Your task to perform on an android device: open app "ColorNote Notepad Notes" (install if not already installed) Image 0: 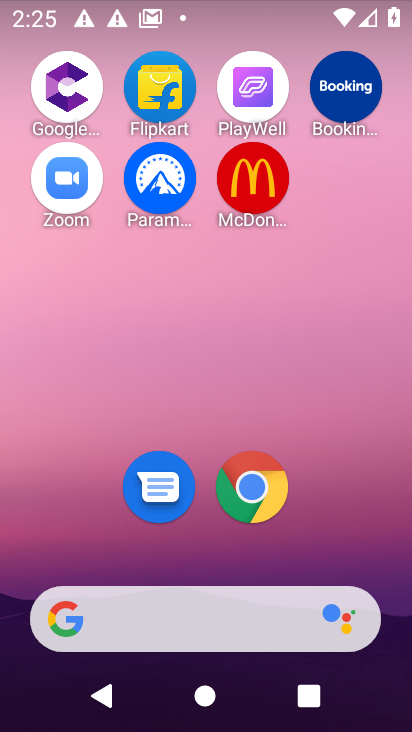
Step 0: drag from (172, 617) to (276, 60)
Your task to perform on an android device: open app "ColorNote Notepad Notes" (install if not already installed) Image 1: 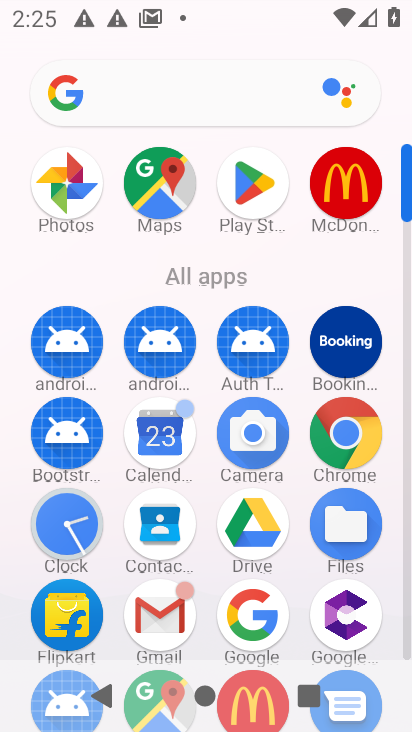
Step 1: click (264, 186)
Your task to perform on an android device: open app "ColorNote Notepad Notes" (install if not already installed) Image 2: 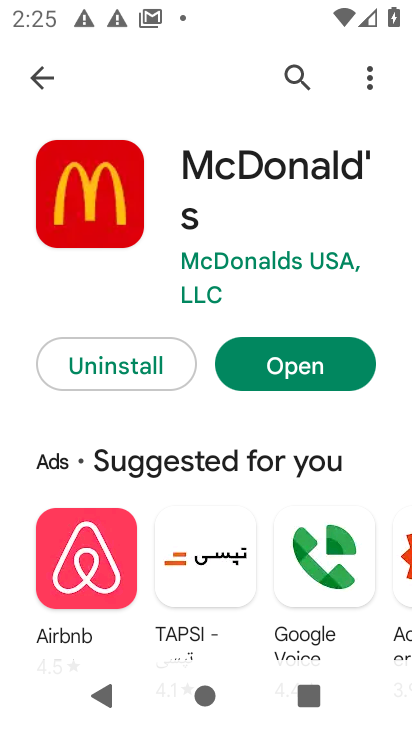
Step 2: press back button
Your task to perform on an android device: open app "ColorNote Notepad Notes" (install if not already installed) Image 3: 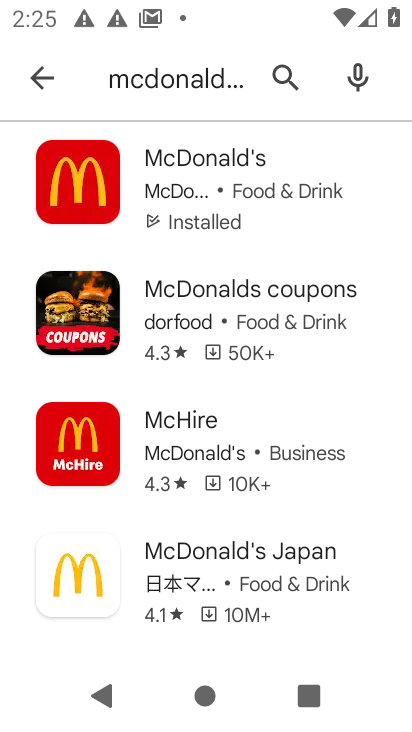
Step 3: press back button
Your task to perform on an android device: open app "ColorNote Notepad Notes" (install if not already installed) Image 4: 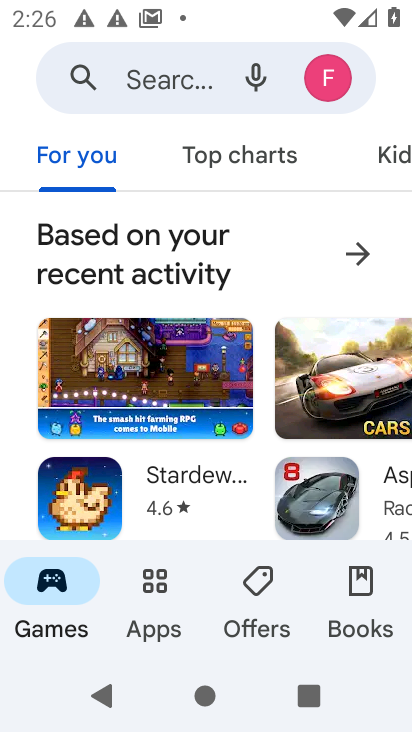
Step 4: click (174, 84)
Your task to perform on an android device: open app "ColorNote Notepad Notes" (install if not already installed) Image 5: 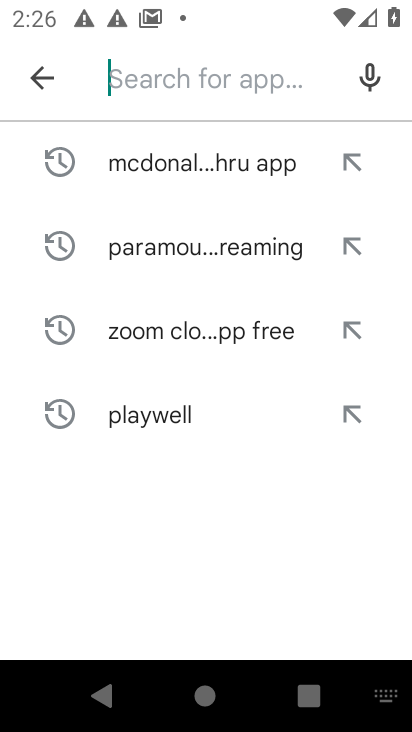
Step 5: click (182, 96)
Your task to perform on an android device: open app "ColorNote Notepad Notes" (install if not already installed) Image 6: 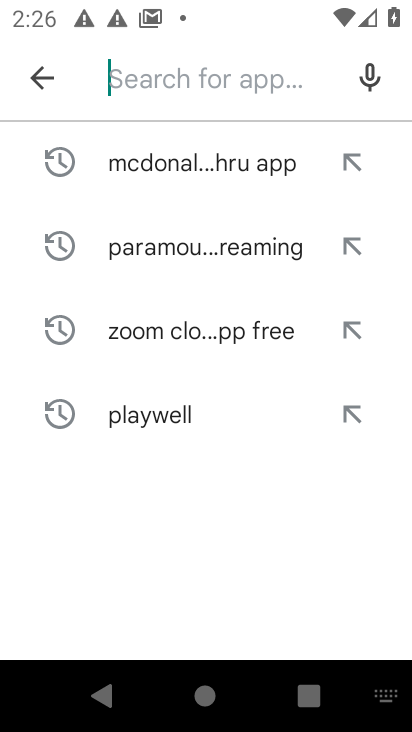
Step 6: type "ColorNote Notepad Notes"
Your task to perform on an android device: open app "ColorNote Notepad Notes" (install if not already installed) Image 7: 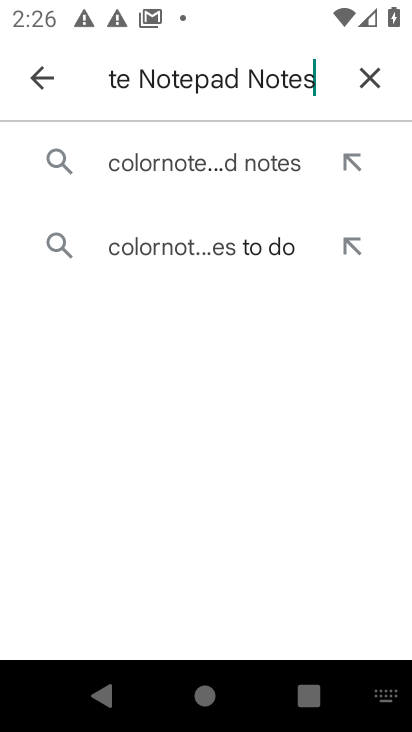
Step 7: click (136, 163)
Your task to perform on an android device: open app "ColorNote Notepad Notes" (install if not already installed) Image 8: 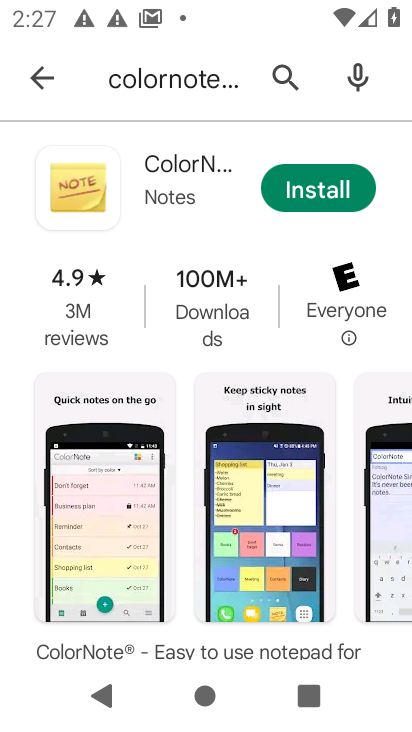
Step 8: click (327, 191)
Your task to perform on an android device: open app "ColorNote Notepad Notes" (install if not already installed) Image 9: 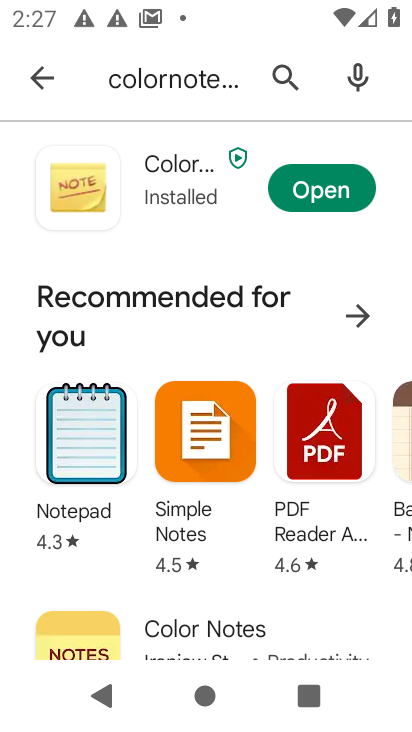
Step 9: click (317, 194)
Your task to perform on an android device: open app "ColorNote Notepad Notes" (install if not already installed) Image 10: 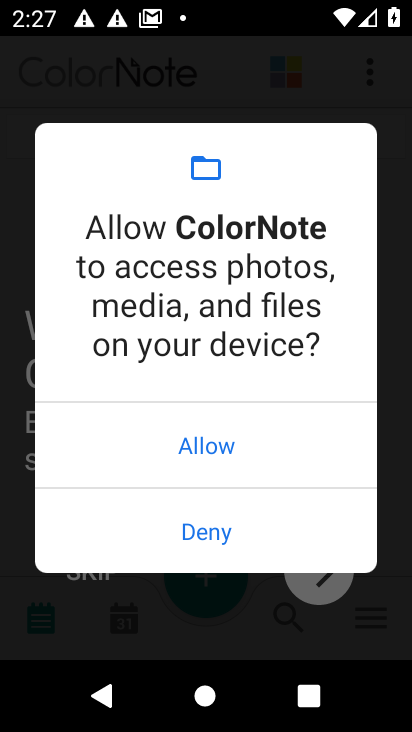
Step 10: click (199, 448)
Your task to perform on an android device: open app "ColorNote Notepad Notes" (install if not already installed) Image 11: 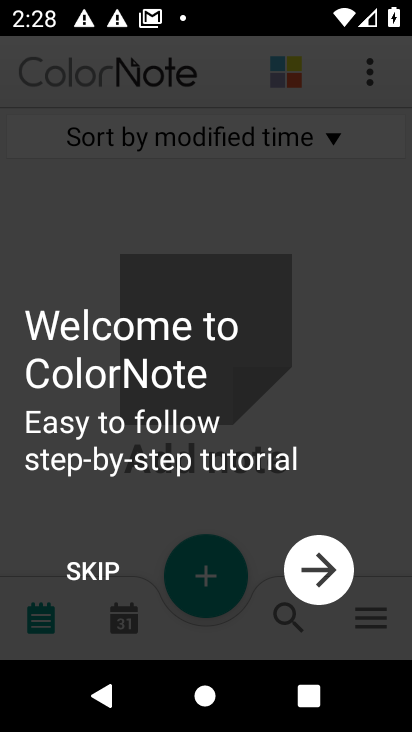
Step 11: click (97, 577)
Your task to perform on an android device: open app "ColorNote Notepad Notes" (install if not already installed) Image 12: 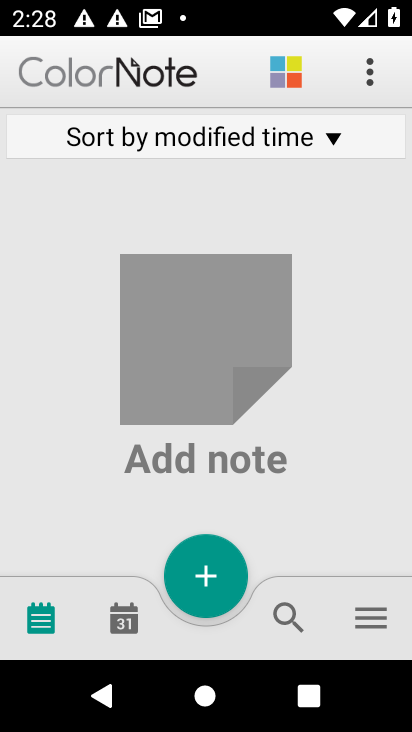
Step 12: task complete